Your task to perform on an android device: turn on translation in the chrome app Image 0: 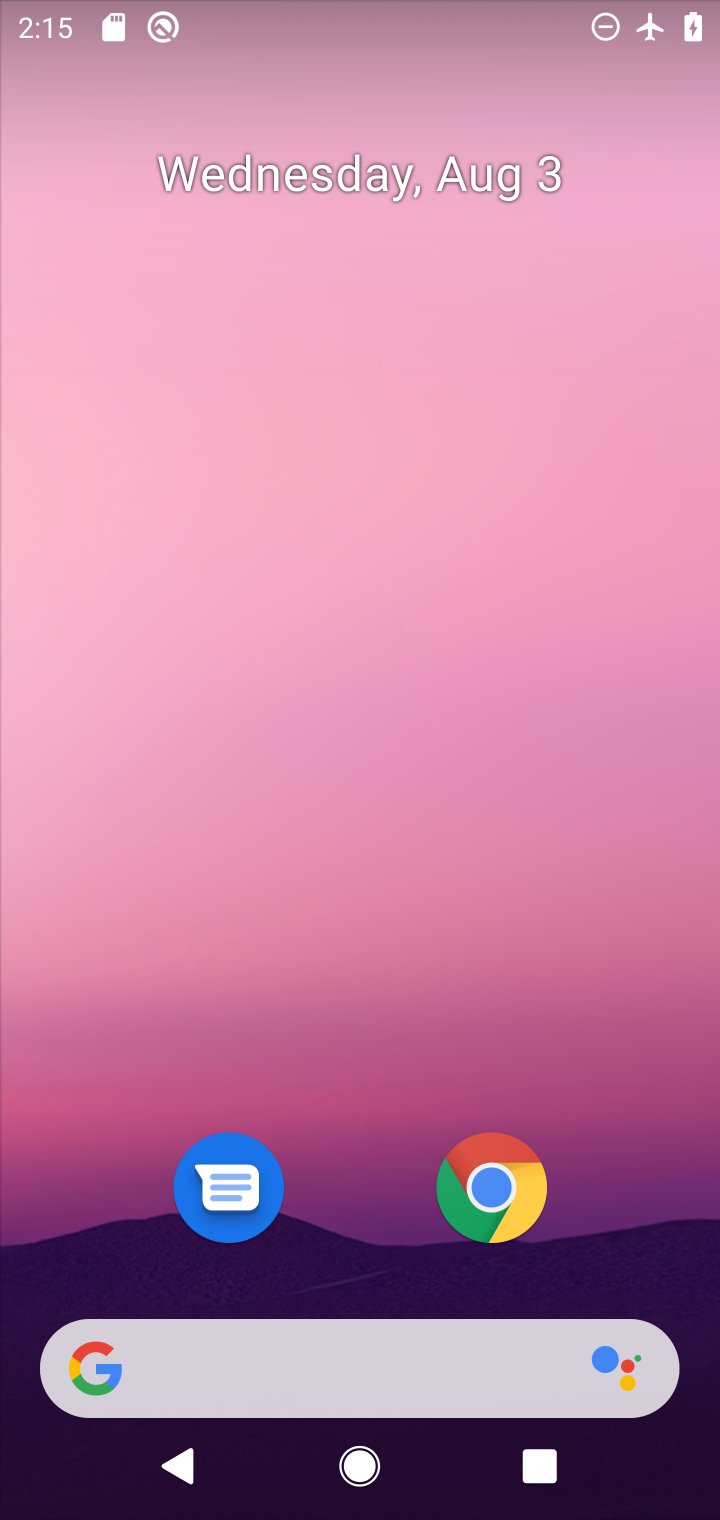
Step 0: click (533, 1185)
Your task to perform on an android device: turn on translation in the chrome app Image 1: 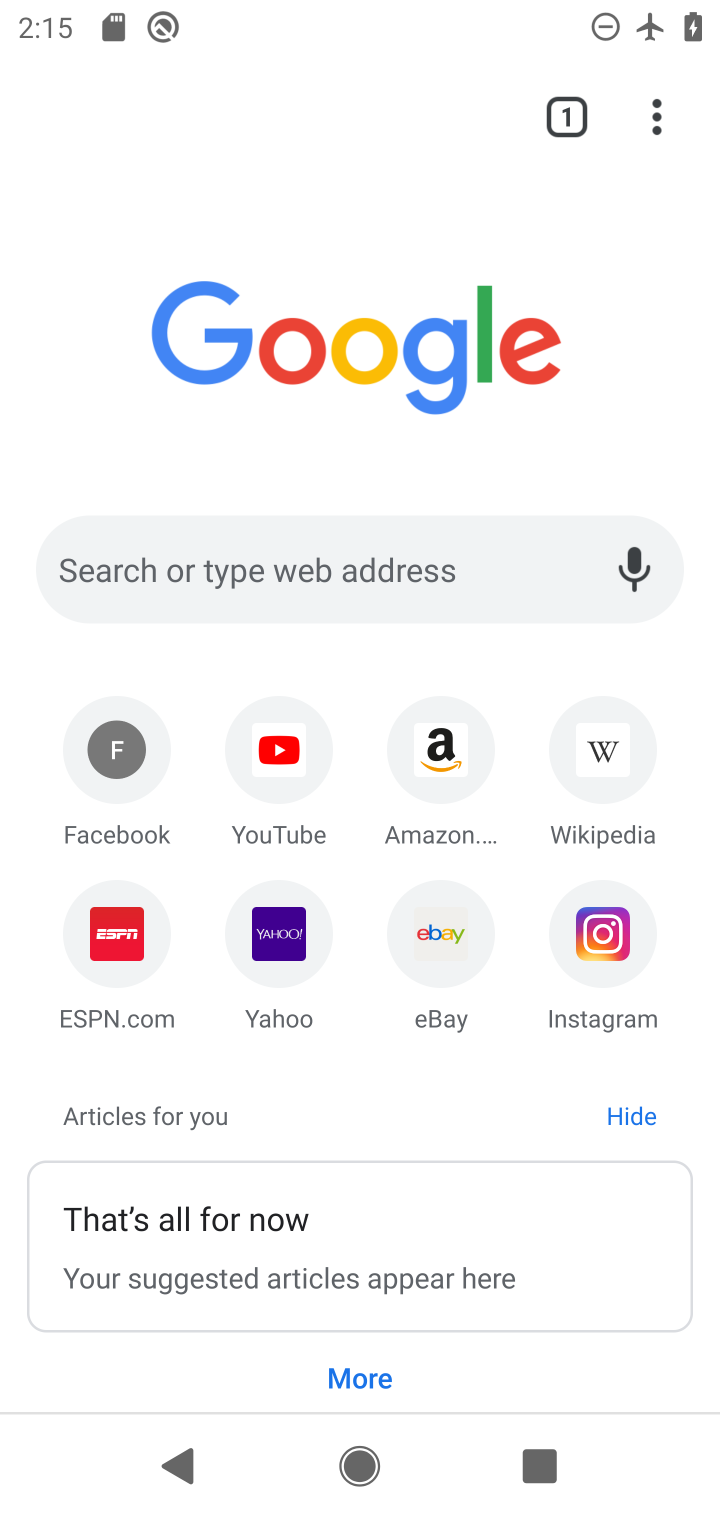
Step 1: click (653, 125)
Your task to perform on an android device: turn on translation in the chrome app Image 2: 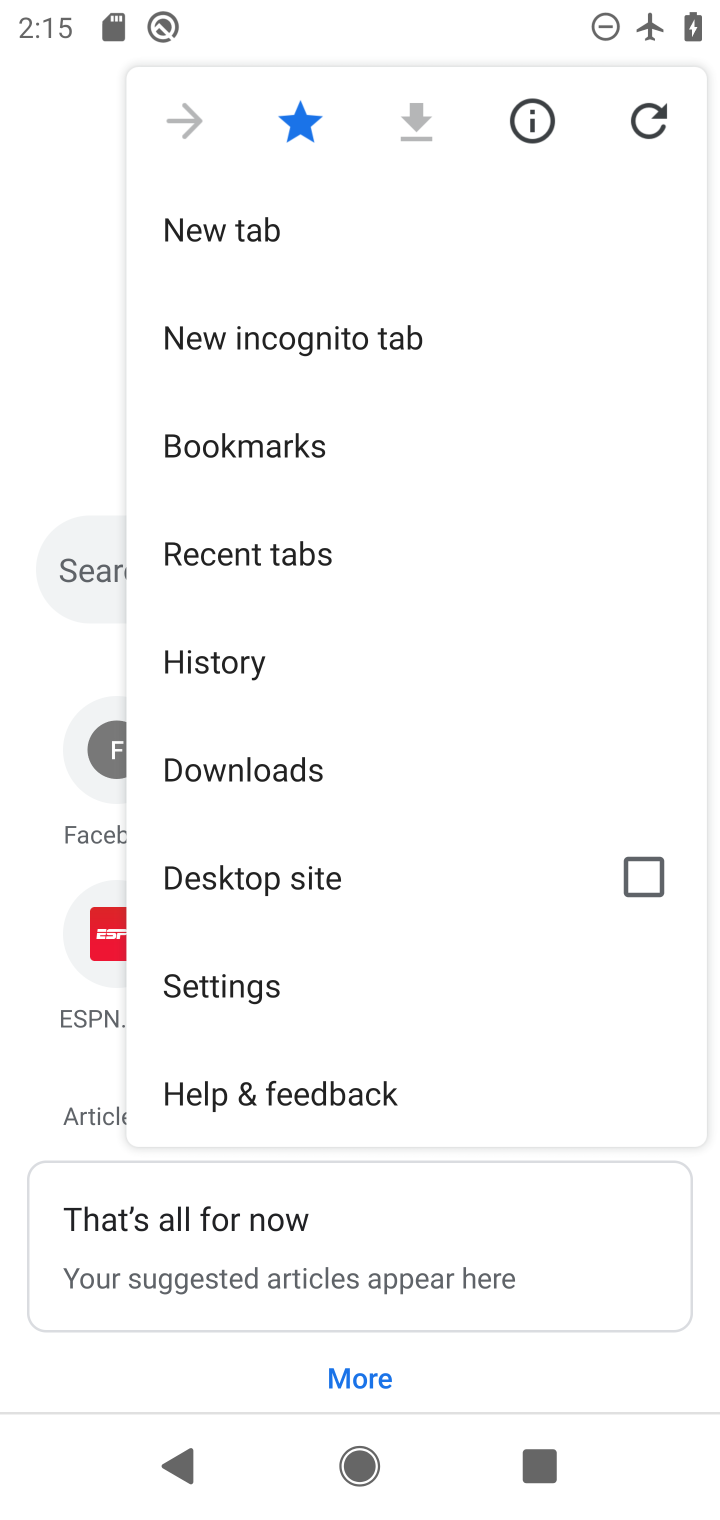
Step 2: click (243, 993)
Your task to perform on an android device: turn on translation in the chrome app Image 3: 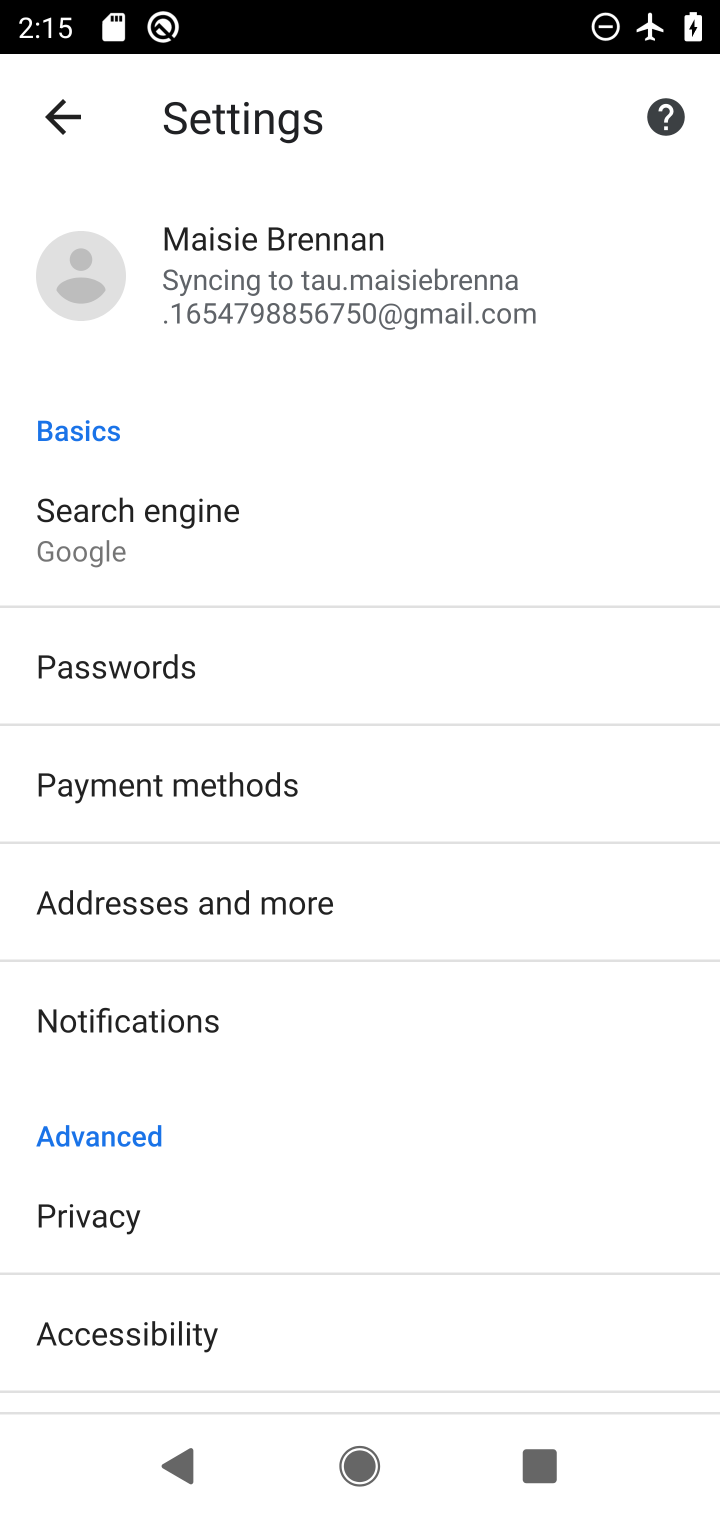
Step 3: drag from (393, 1087) to (397, 326)
Your task to perform on an android device: turn on translation in the chrome app Image 4: 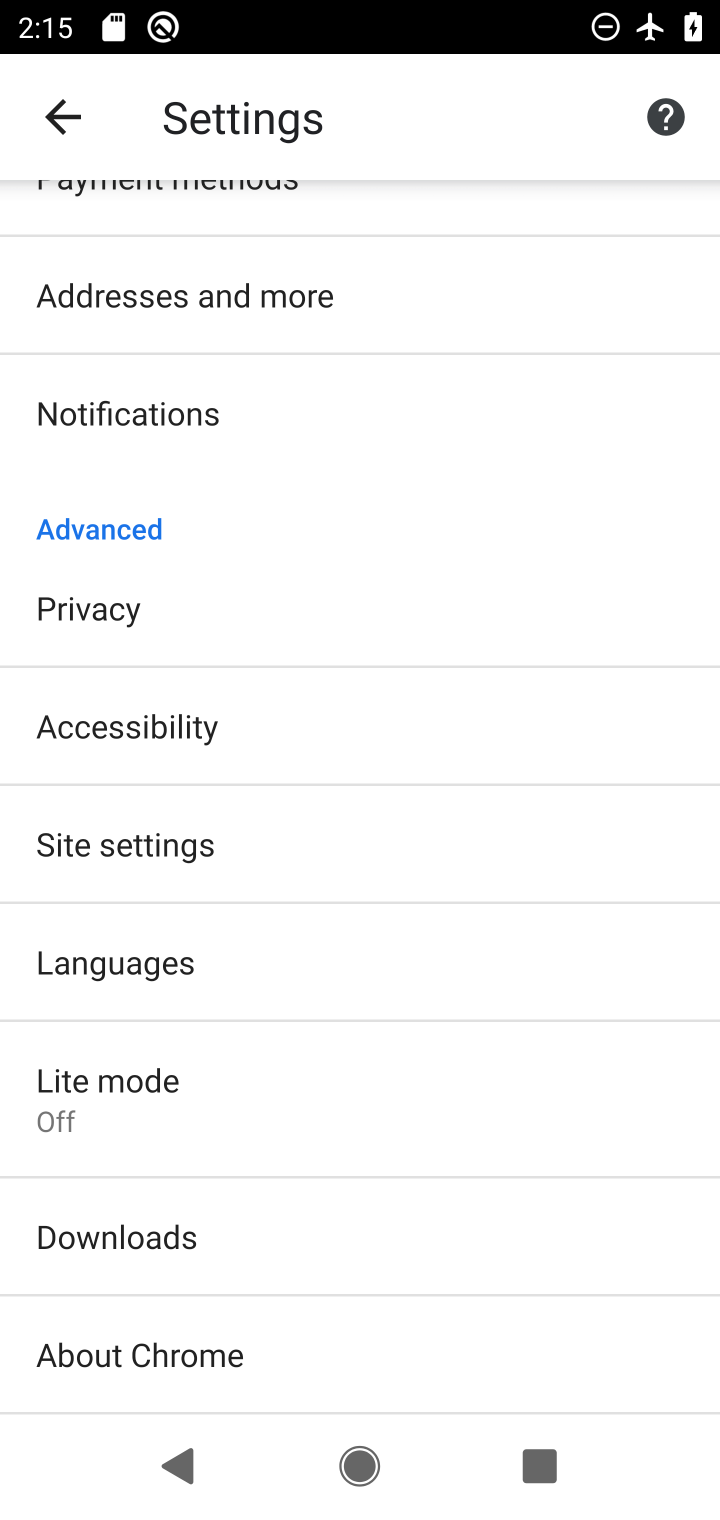
Step 4: click (189, 955)
Your task to perform on an android device: turn on translation in the chrome app Image 5: 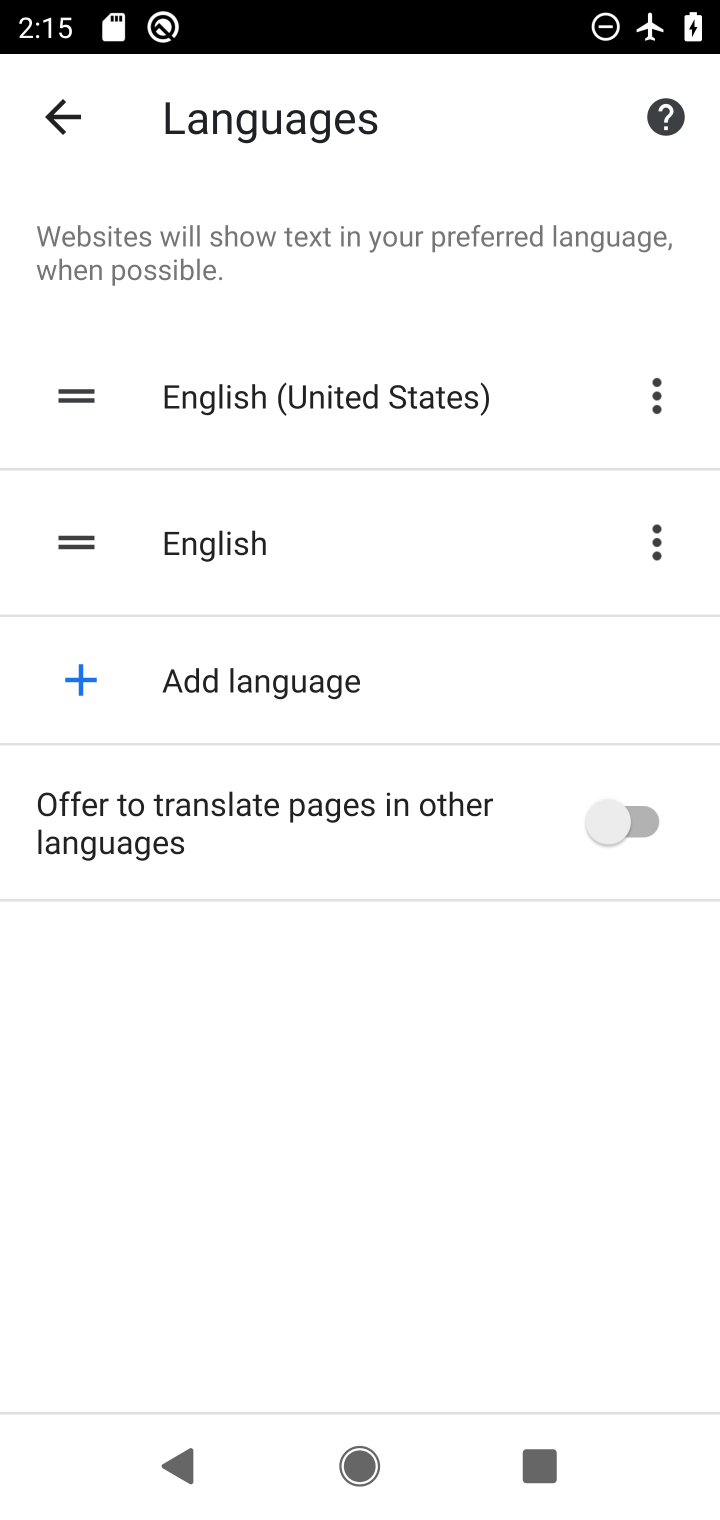
Step 5: click (604, 815)
Your task to perform on an android device: turn on translation in the chrome app Image 6: 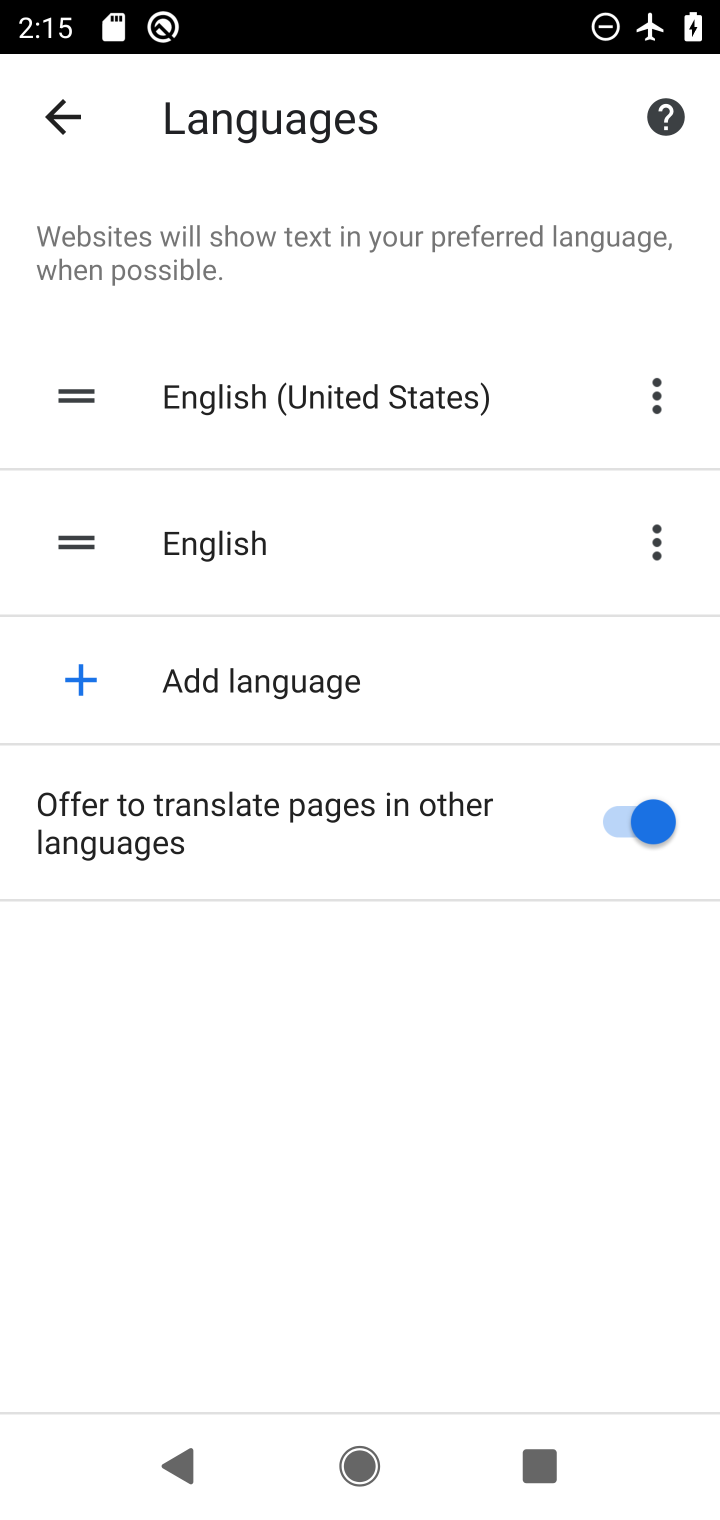
Step 6: task complete